Your task to perform on an android device: Go to location settings Image 0: 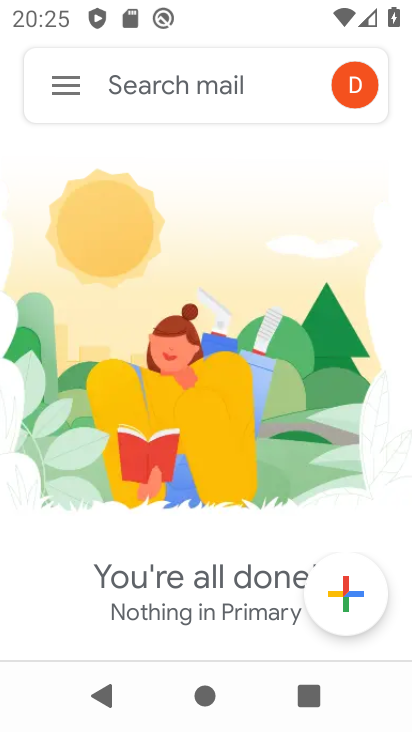
Step 0: press home button
Your task to perform on an android device: Go to location settings Image 1: 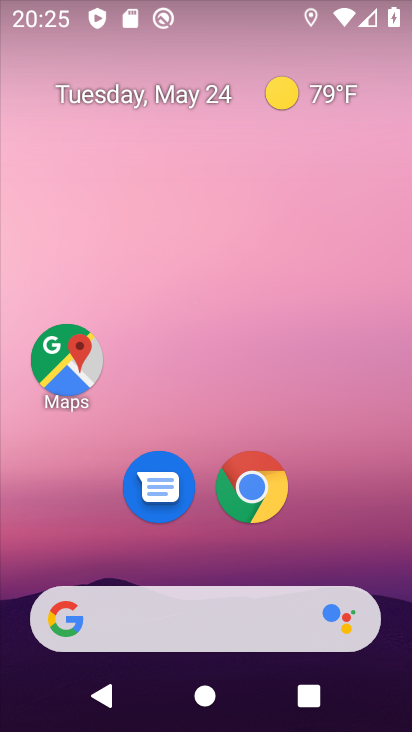
Step 1: drag from (274, 545) to (327, 29)
Your task to perform on an android device: Go to location settings Image 2: 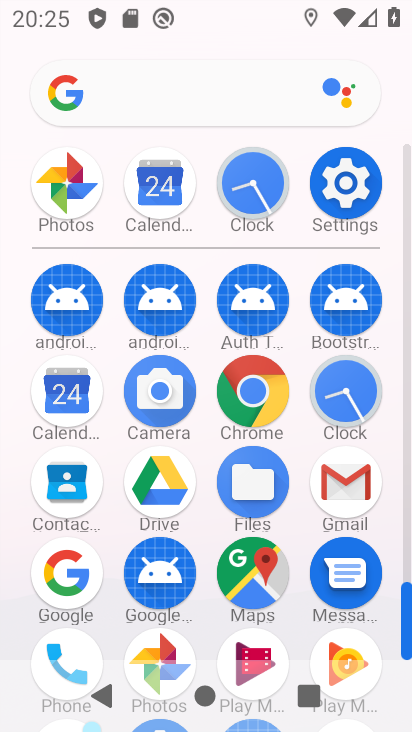
Step 2: click (359, 170)
Your task to perform on an android device: Go to location settings Image 3: 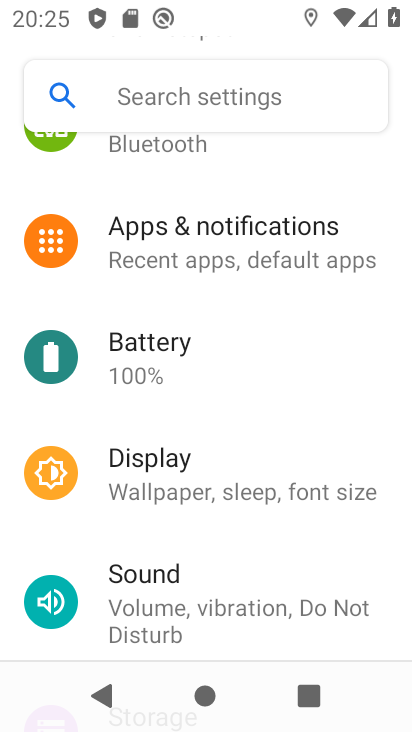
Step 3: drag from (232, 573) to (260, 258)
Your task to perform on an android device: Go to location settings Image 4: 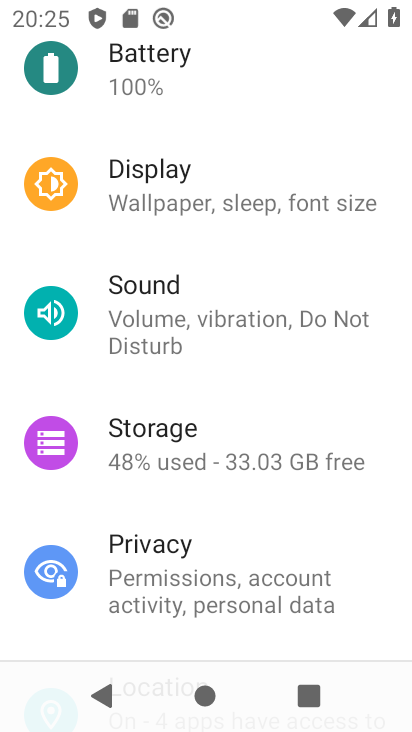
Step 4: drag from (261, 263) to (241, 183)
Your task to perform on an android device: Go to location settings Image 5: 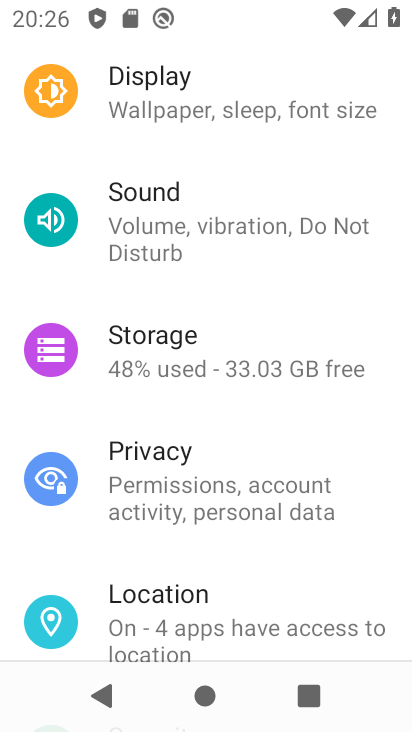
Step 5: click (161, 602)
Your task to perform on an android device: Go to location settings Image 6: 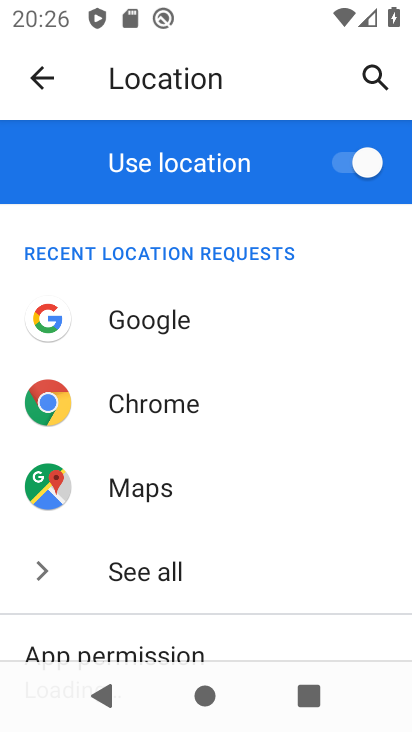
Step 6: task complete